Your task to perform on an android device: Search for Italian restaurants on Maps Image 0: 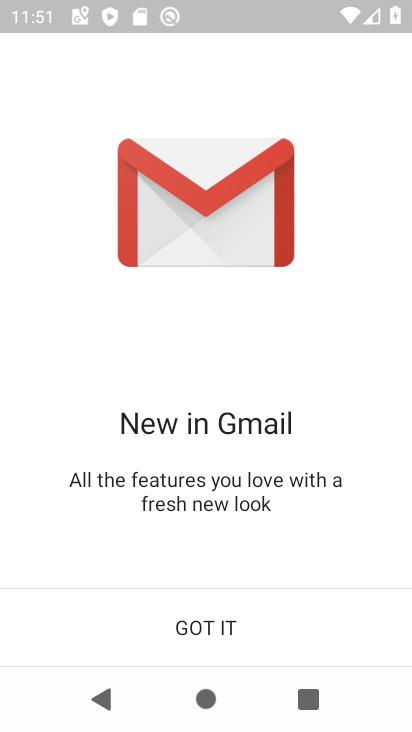
Step 0: press home button
Your task to perform on an android device: Search for Italian restaurants on Maps Image 1: 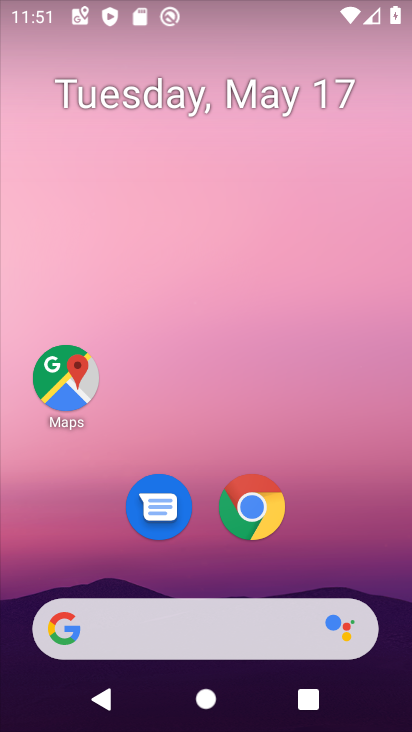
Step 1: click (71, 362)
Your task to perform on an android device: Search for Italian restaurants on Maps Image 2: 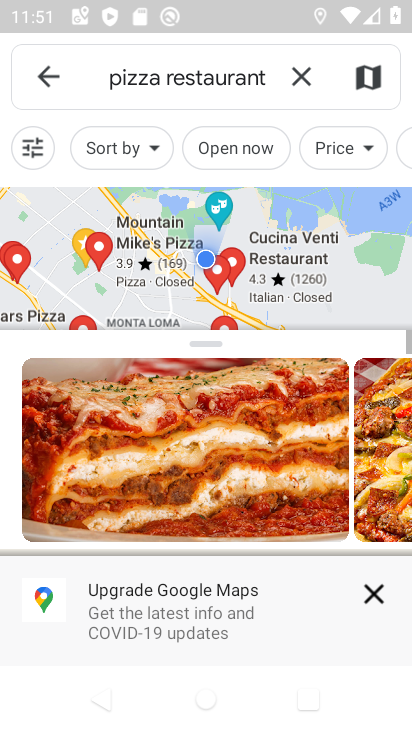
Step 2: click (299, 80)
Your task to perform on an android device: Search for Italian restaurants on Maps Image 3: 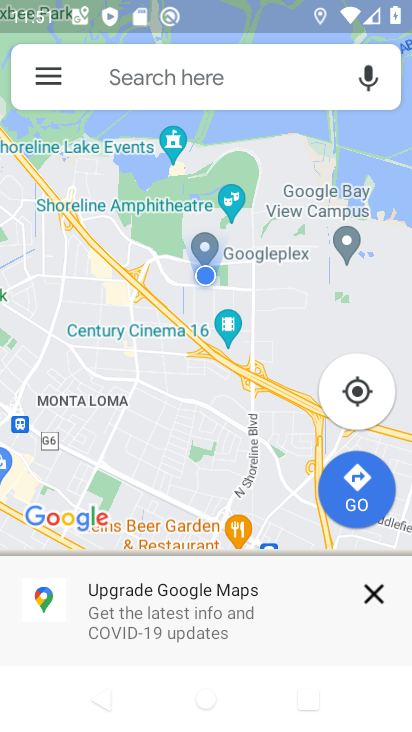
Step 3: click (233, 67)
Your task to perform on an android device: Search for Italian restaurants on Maps Image 4: 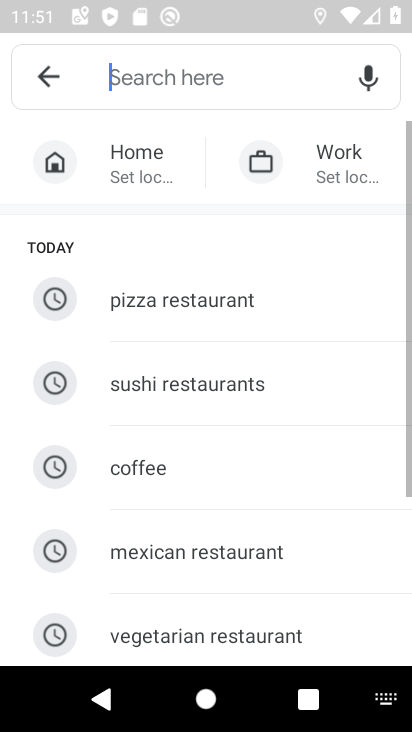
Step 4: type "Italian restaurants"
Your task to perform on an android device: Search for Italian restaurants on Maps Image 5: 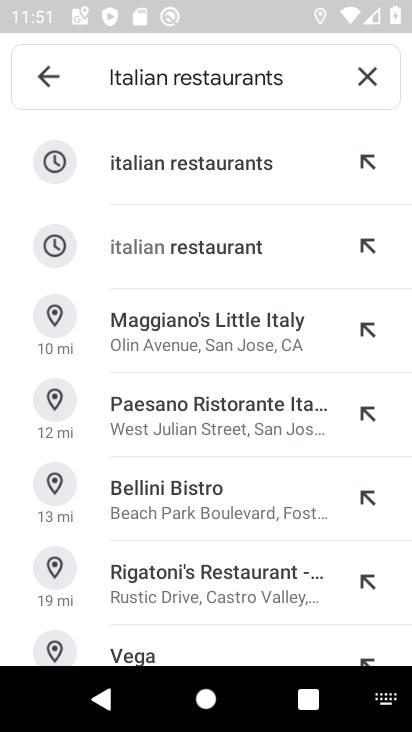
Step 5: click (241, 173)
Your task to perform on an android device: Search for Italian restaurants on Maps Image 6: 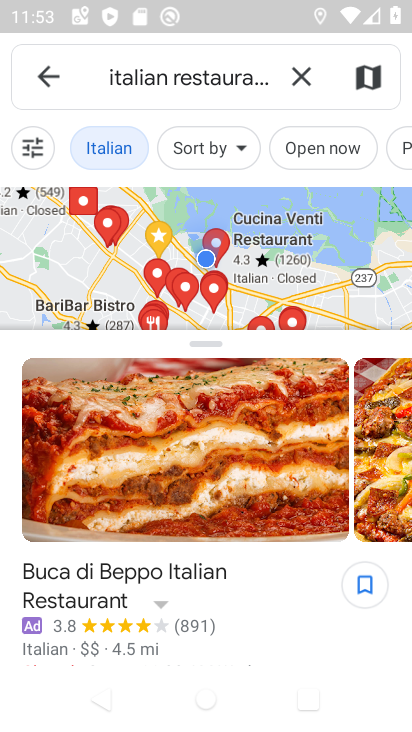
Step 6: task complete